Your task to perform on an android device: Open Maps and search for coffee Image 0: 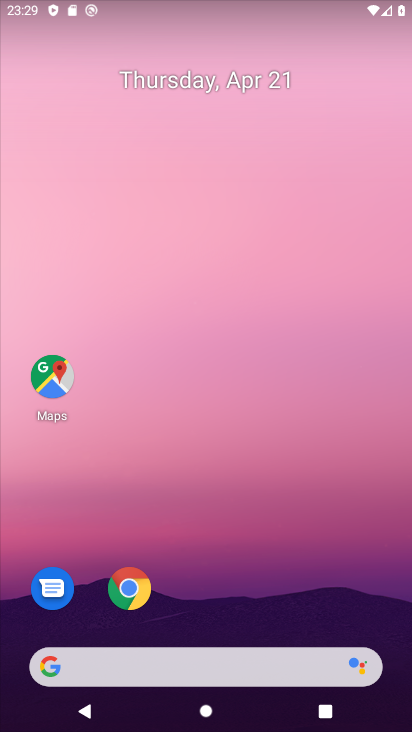
Step 0: click (53, 386)
Your task to perform on an android device: Open Maps and search for coffee Image 1: 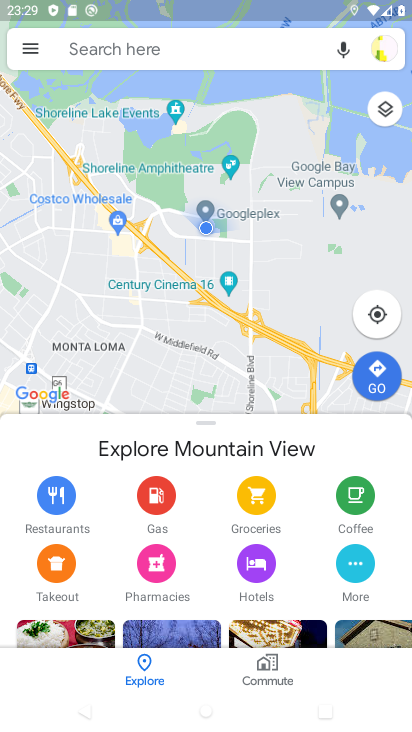
Step 1: click (162, 46)
Your task to perform on an android device: Open Maps and search for coffee Image 2: 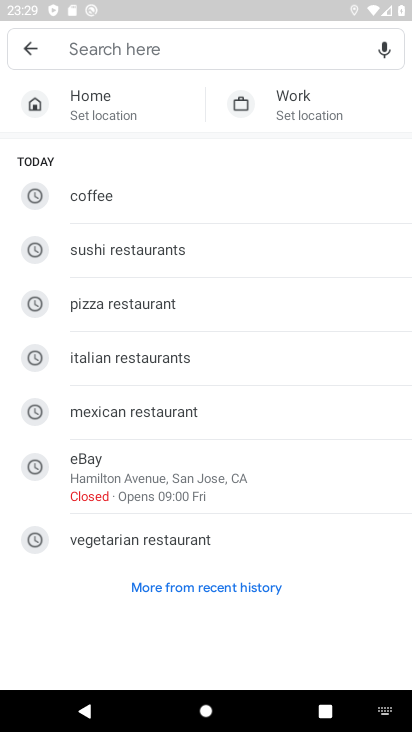
Step 2: click (114, 201)
Your task to perform on an android device: Open Maps and search for coffee Image 3: 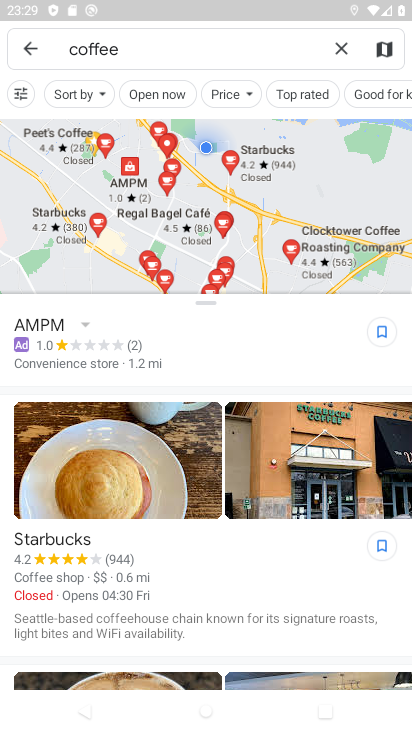
Step 3: task complete